Your task to perform on an android device: visit the assistant section in the google photos Image 0: 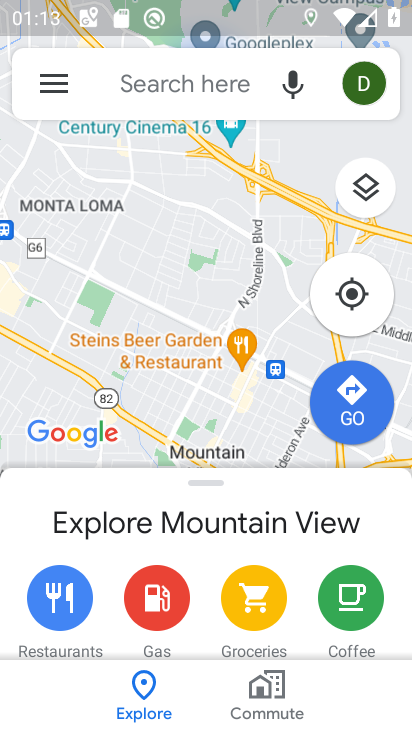
Step 0: press home button
Your task to perform on an android device: visit the assistant section in the google photos Image 1: 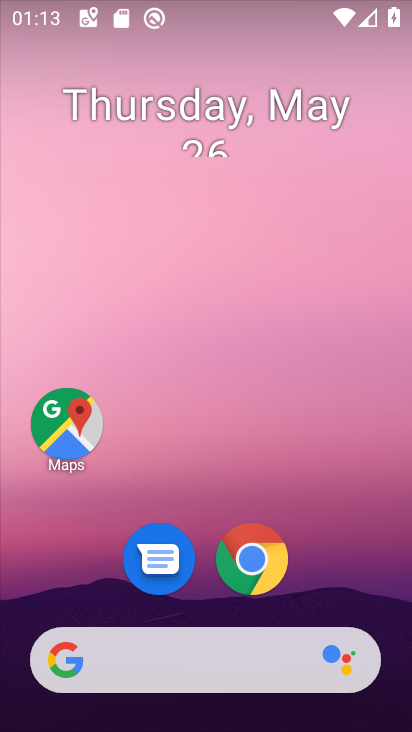
Step 1: drag from (335, 592) to (311, 89)
Your task to perform on an android device: visit the assistant section in the google photos Image 2: 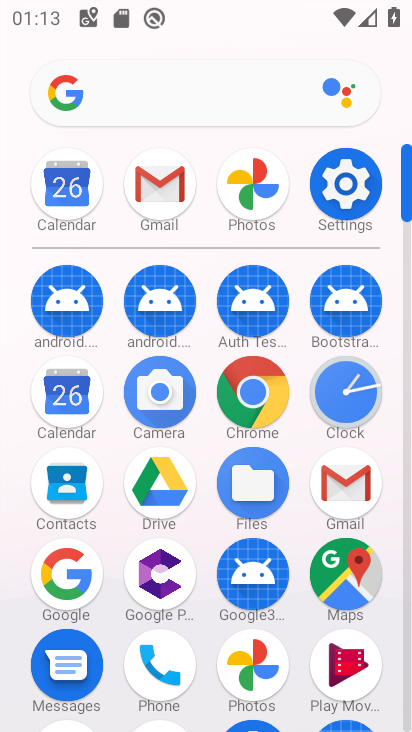
Step 2: click (249, 175)
Your task to perform on an android device: visit the assistant section in the google photos Image 3: 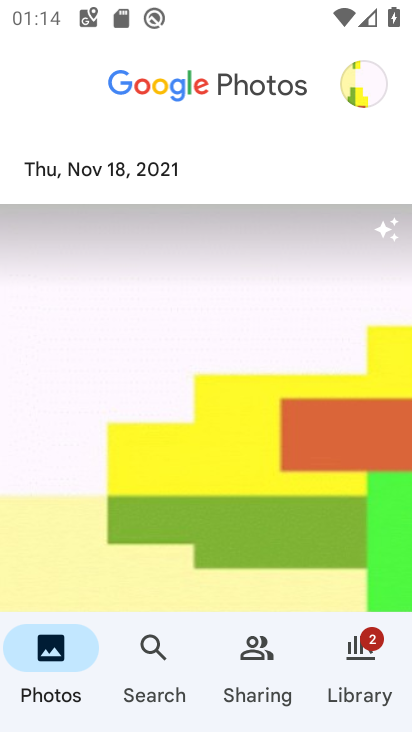
Step 3: drag from (204, 634) to (11, 649)
Your task to perform on an android device: visit the assistant section in the google photos Image 4: 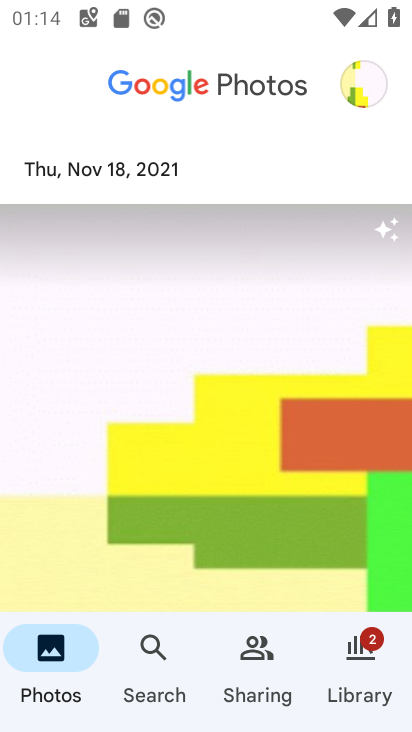
Step 4: drag from (113, 622) to (400, 586)
Your task to perform on an android device: visit the assistant section in the google photos Image 5: 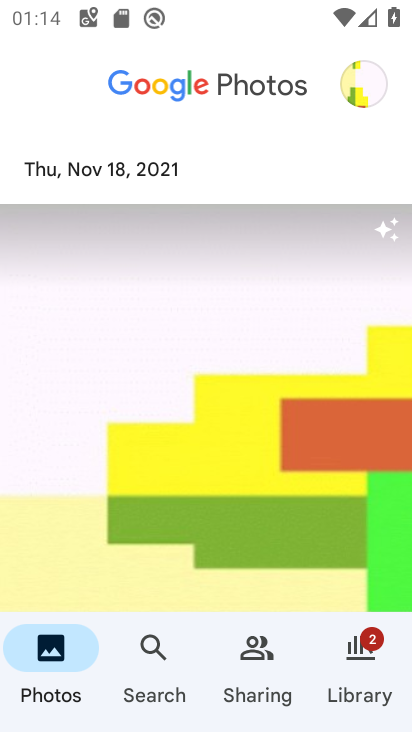
Step 5: click (359, 85)
Your task to perform on an android device: visit the assistant section in the google photos Image 6: 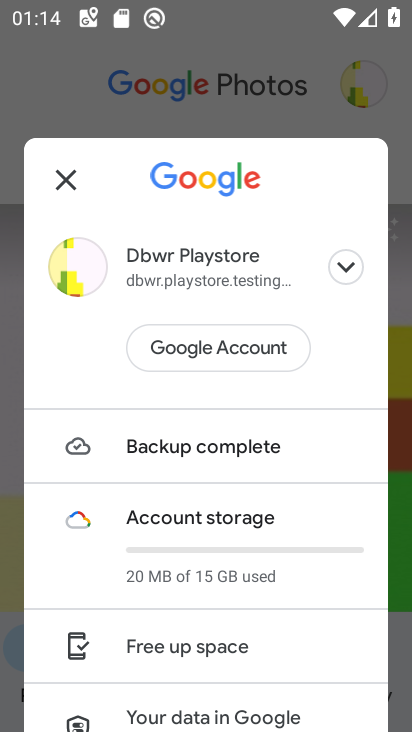
Step 6: drag from (323, 674) to (264, 267)
Your task to perform on an android device: visit the assistant section in the google photos Image 7: 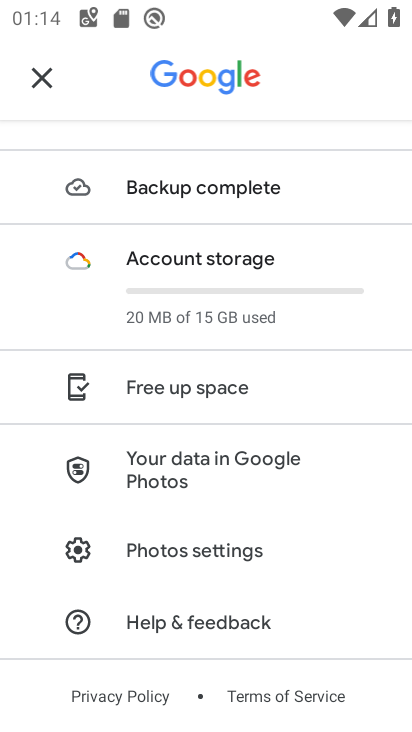
Step 7: drag from (281, 616) to (274, 362)
Your task to perform on an android device: visit the assistant section in the google photos Image 8: 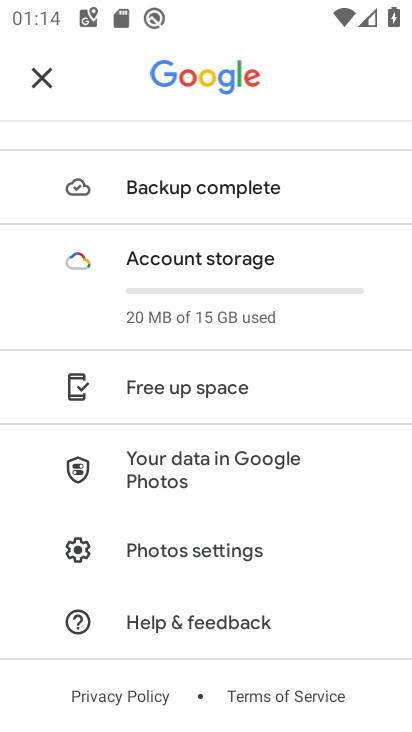
Step 8: click (45, 74)
Your task to perform on an android device: visit the assistant section in the google photos Image 9: 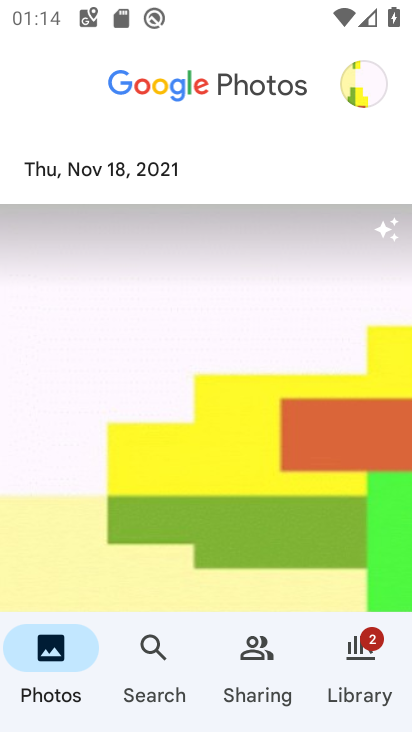
Step 9: click (48, 664)
Your task to perform on an android device: visit the assistant section in the google photos Image 10: 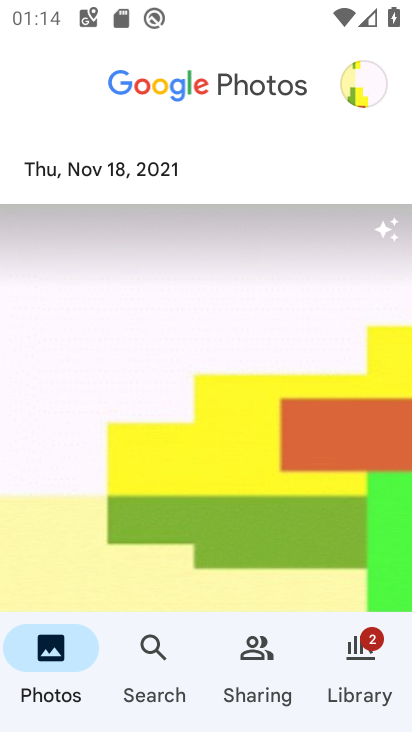
Step 10: click (363, 652)
Your task to perform on an android device: visit the assistant section in the google photos Image 11: 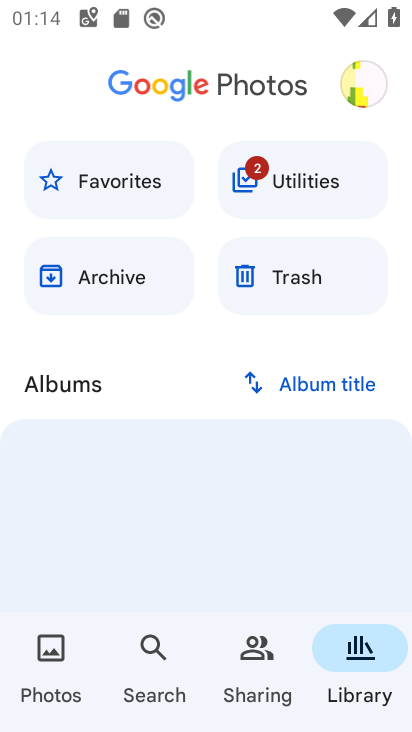
Step 11: drag from (317, 337) to (146, 337)
Your task to perform on an android device: visit the assistant section in the google photos Image 12: 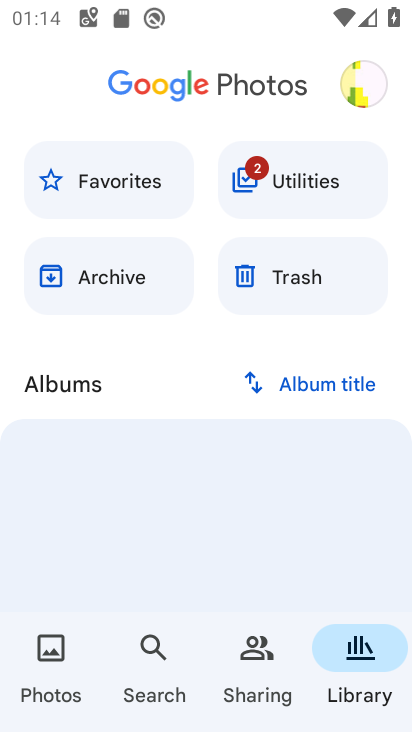
Step 12: drag from (265, 525) to (206, 242)
Your task to perform on an android device: visit the assistant section in the google photos Image 13: 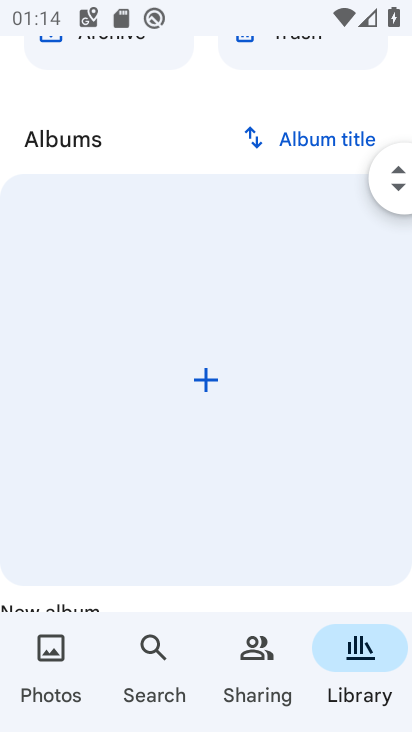
Step 13: drag from (225, 542) to (237, 261)
Your task to perform on an android device: visit the assistant section in the google photos Image 14: 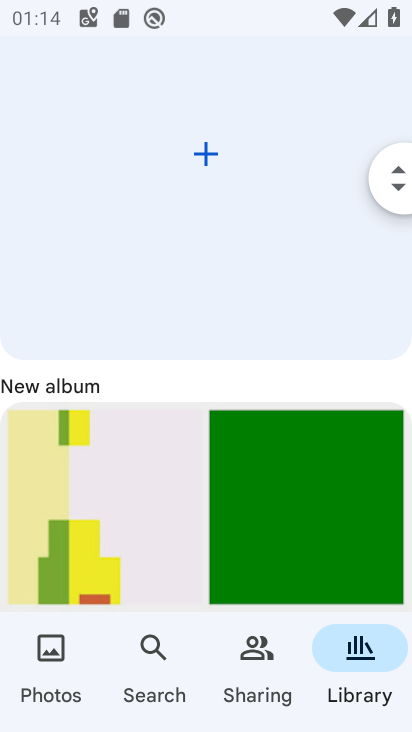
Step 14: click (251, 656)
Your task to perform on an android device: visit the assistant section in the google photos Image 15: 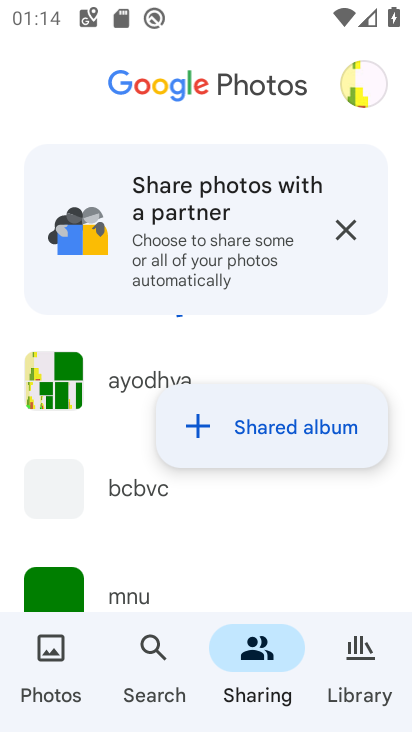
Step 15: drag from (171, 560) to (152, 256)
Your task to perform on an android device: visit the assistant section in the google photos Image 16: 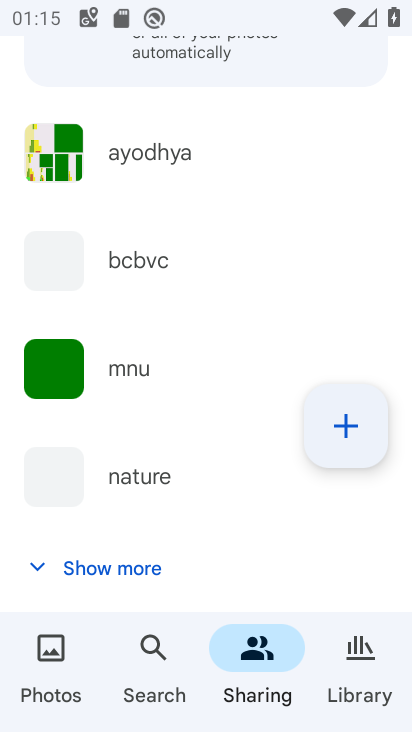
Step 16: click (159, 665)
Your task to perform on an android device: visit the assistant section in the google photos Image 17: 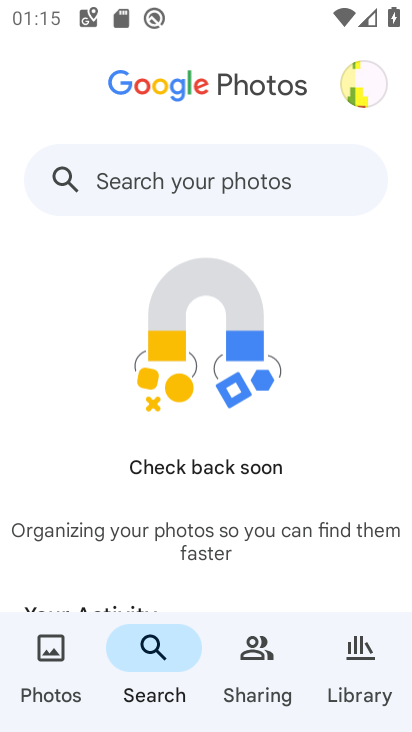
Step 17: task complete